Your task to perform on an android device: empty trash in google photos Image 0: 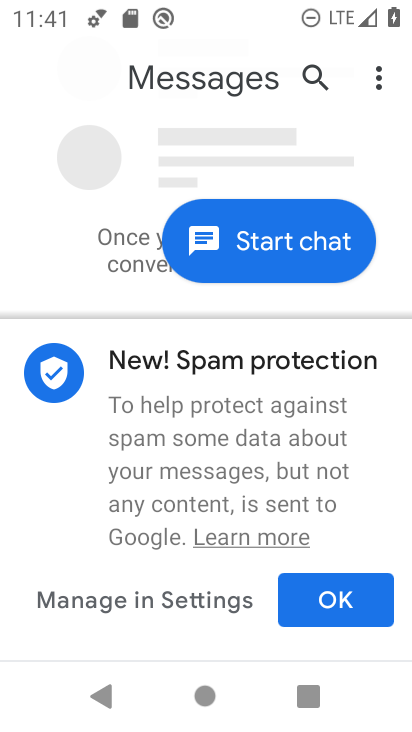
Step 0: press home button
Your task to perform on an android device: empty trash in google photos Image 1: 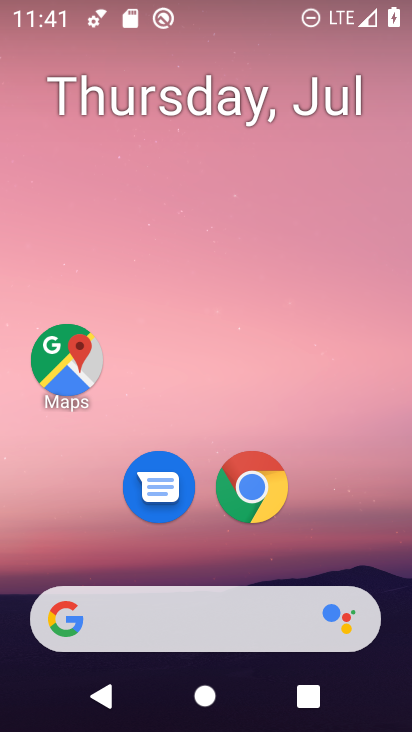
Step 1: drag from (302, 617) to (253, 92)
Your task to perform on an android device: empty trash in google photos Image 2: 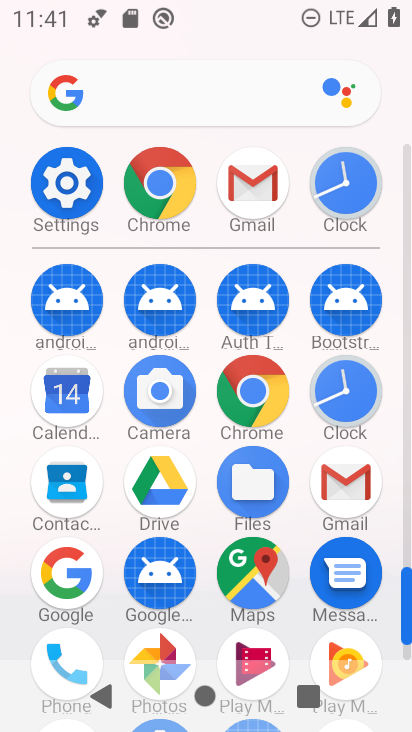
Step 2: drag from (240, 372) to (214, 132)
Your task to perform on an android device: empty trash in google photos Image 3: 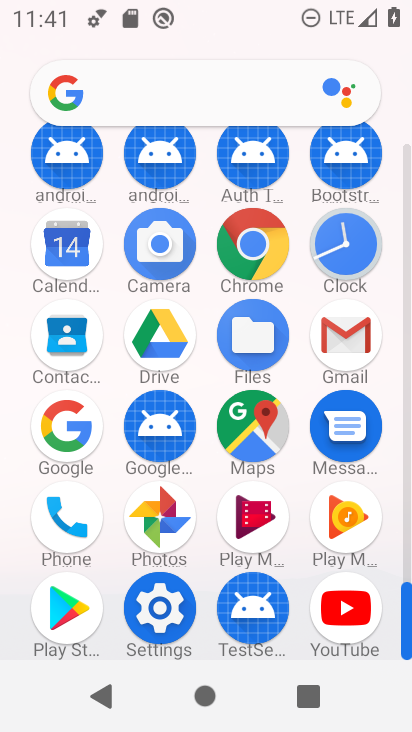
Step 3: click (168, 542)
Your task to perform on an android device: empty trash in google photos Image 4: 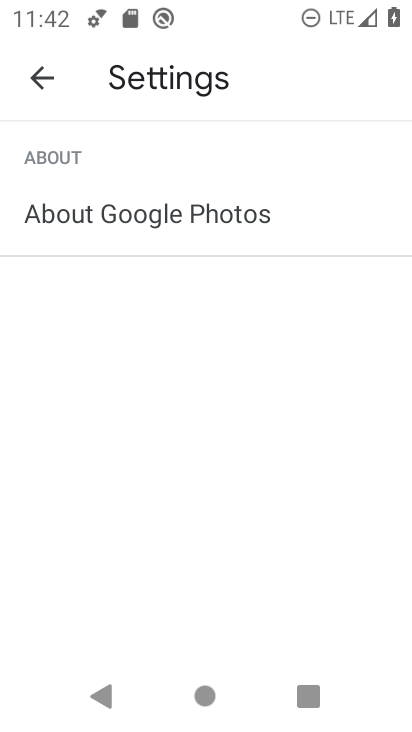
Step 4: click (36, 84)
Your task to perform on an android device: empty trash in google photos Image 5: 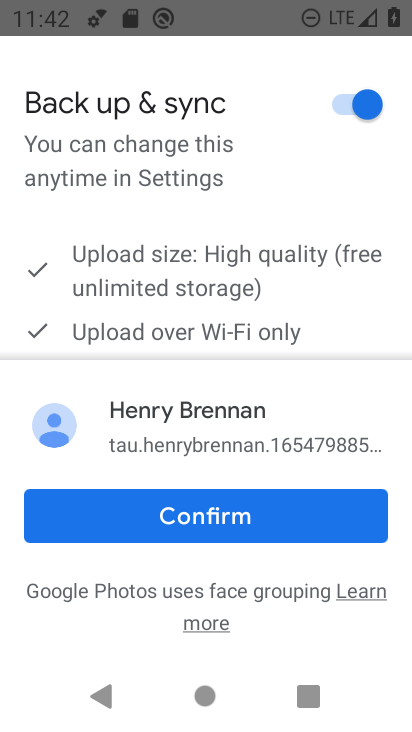
Step 5: click (275, 517)
Your task to perform on an android device: empty trash in google photos Image 6: 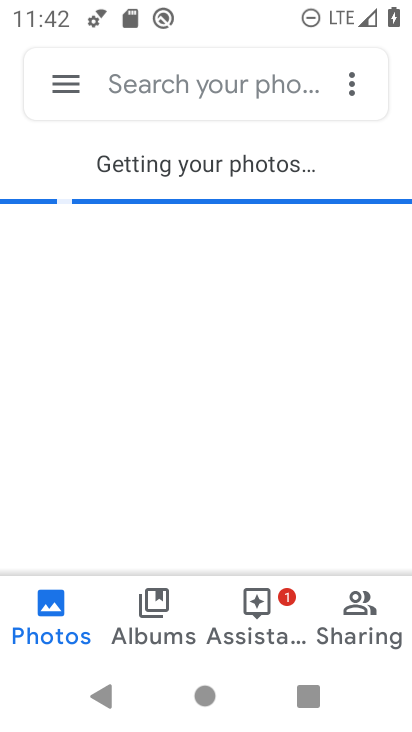
Step 6: click (355, 81)
Your task to perform on an android device: empty trash in google photos Image 7: 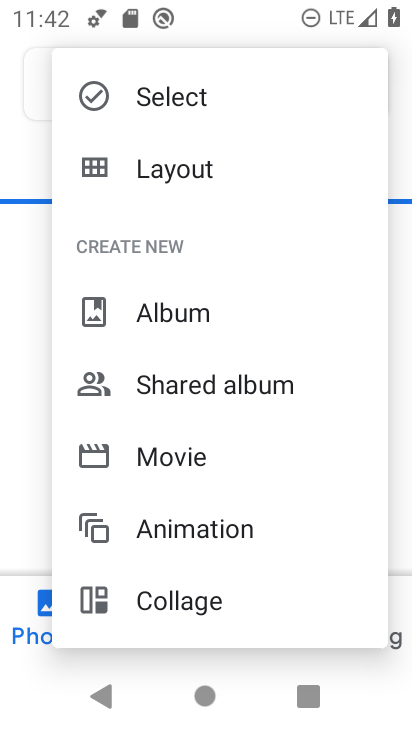
Step 7: click (38, 217)
Your task to perform on an android device: empty trash in google photos Image 8: 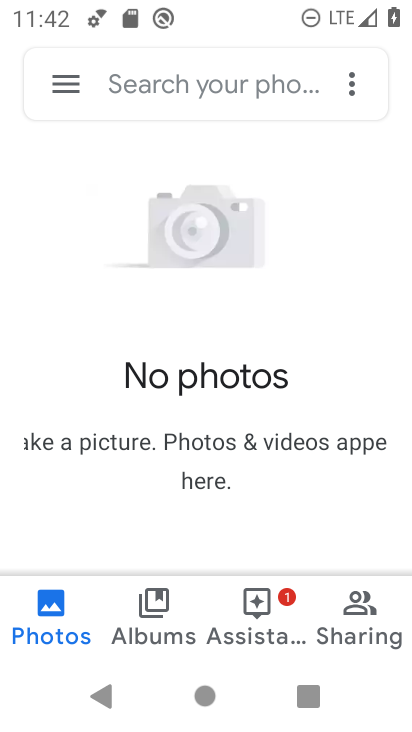
Step 8: click (65, 85)
Your task to perform on an android device: empty trash in google photos Image 9: 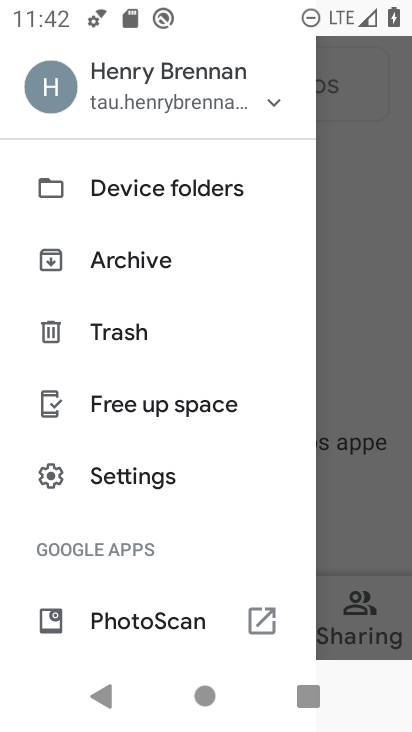
Step 9: click (124, 336)
Your task to perform on an android device: empty trash in google photos Image 10: 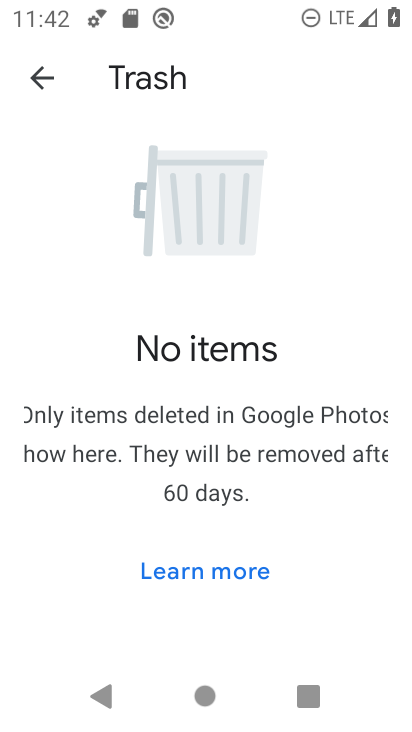
Step 10: task complete